Your task to perform on an android device: Open eBay Image 0: 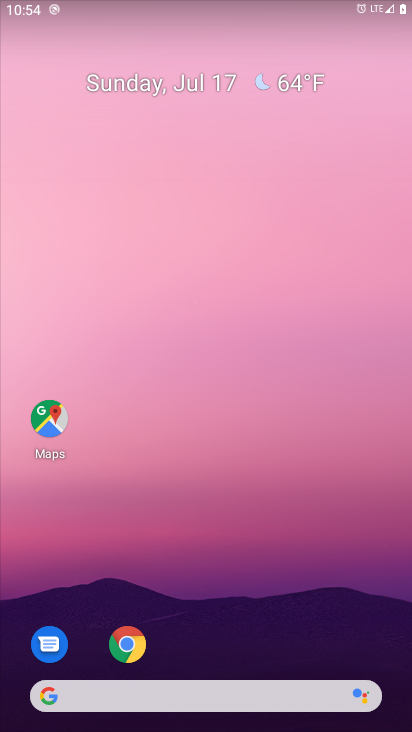
Step 0: press home button
Your task to perform on an android device: Open eBay Image 1: 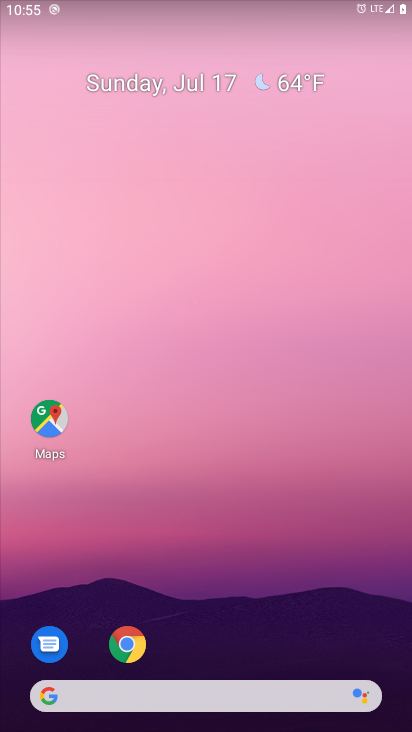
Step 1: click (49, 700)
Your task to perform on an android device: Open eBay Image 2: 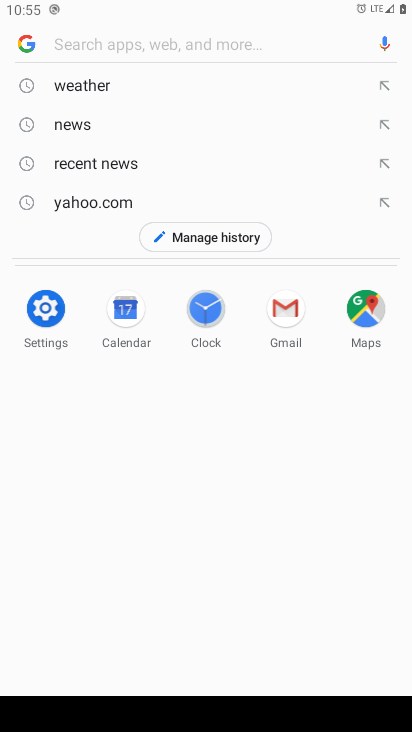
Step 2: type "eBay"
Your task to perform on an android device: Open eBay Image 3: 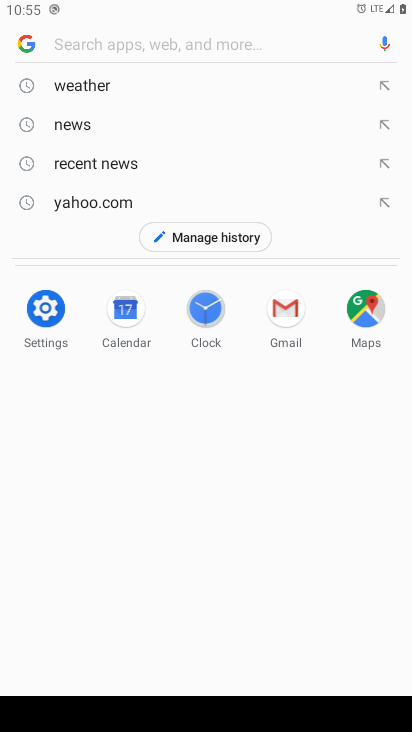
Step 3: click (85, 47)
Your task to perform on an android device: Open eBay Image 4: 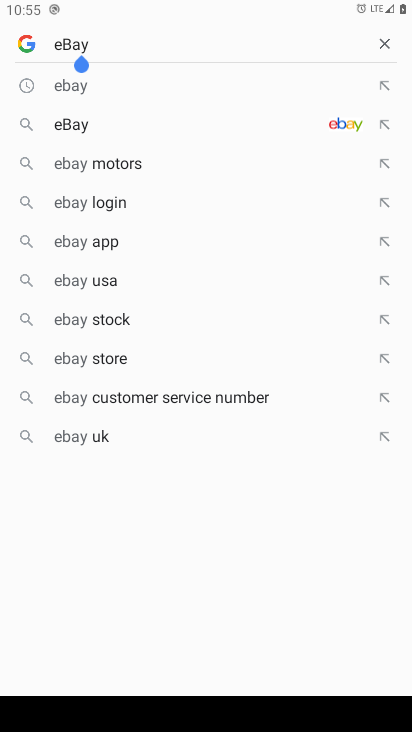
Step 4: click (329, 130)
Your task to perform on an android device: Open eBay Image 5: 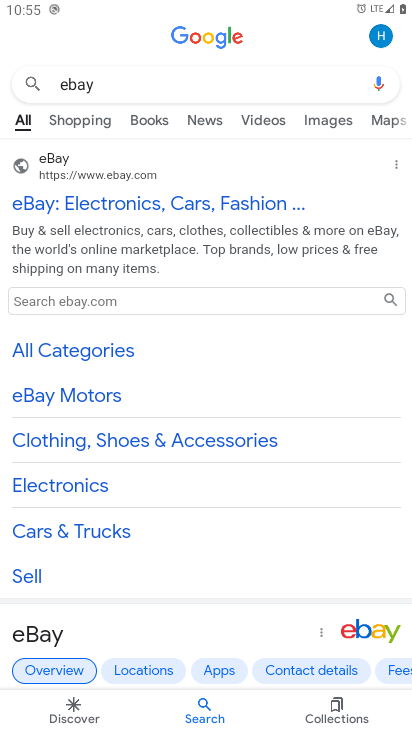
Step 5: click (98, 198)
Your task to perform on an android device: Open eBay Image 6: 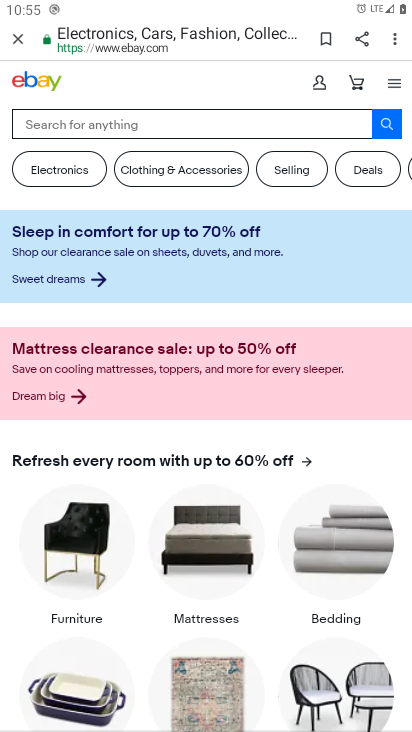
Step 6: task complete